Your task to perform on an android device: Is it going to rain tomorrow? Image 0: 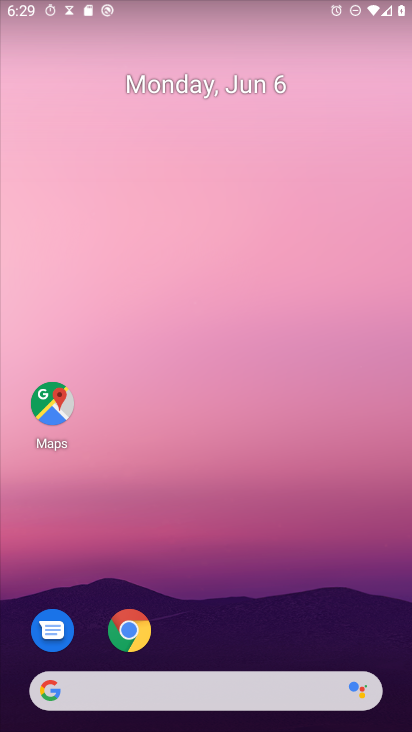
Step 0: drag from (265, 590) to (268, 1)
Your task to perform on an android device: Is it going to rain tomorrow? Image 1: 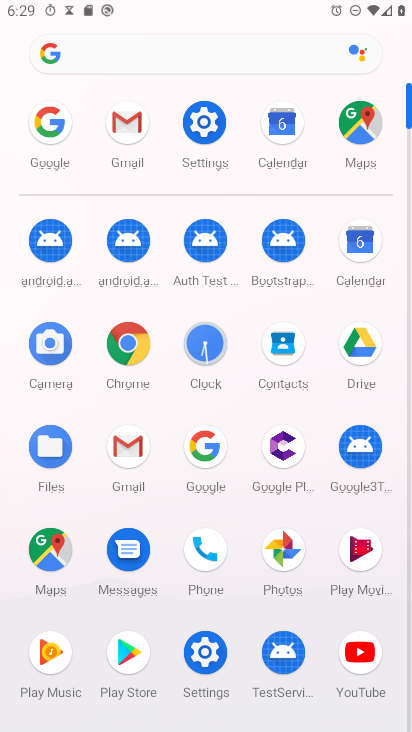
Step 1: click (208, 453)
Your task to perform on an android device: Is it going to rain tomorrow? Image 2: 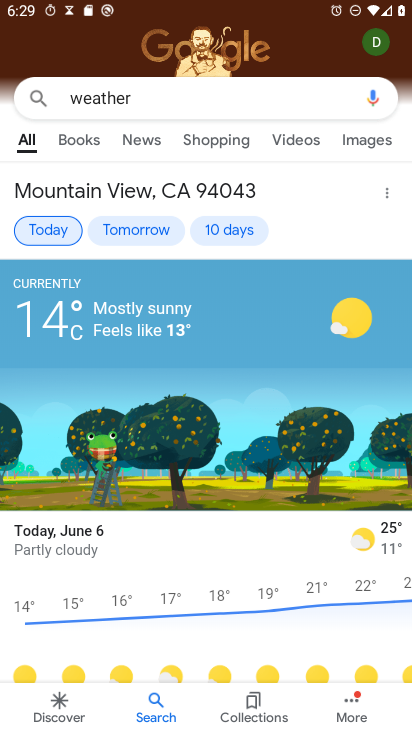
Step 2: click (129, 225)
Your task to perform on an android device: Is it going to rain tomorrow? Image 3: 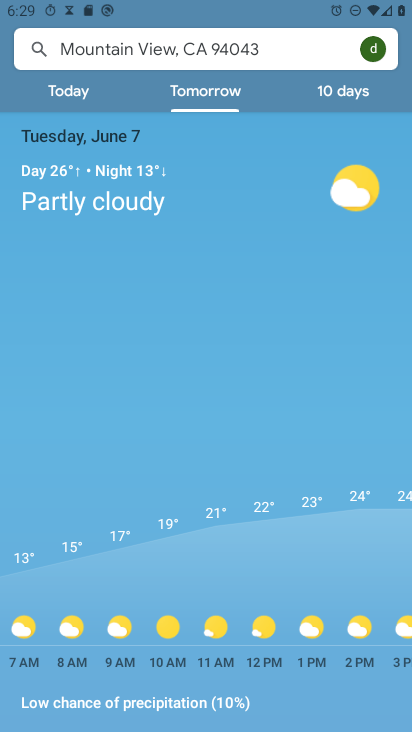
Step 3: task complete